Your task to perform on an android device: change the clock display to show seconds Image 0: 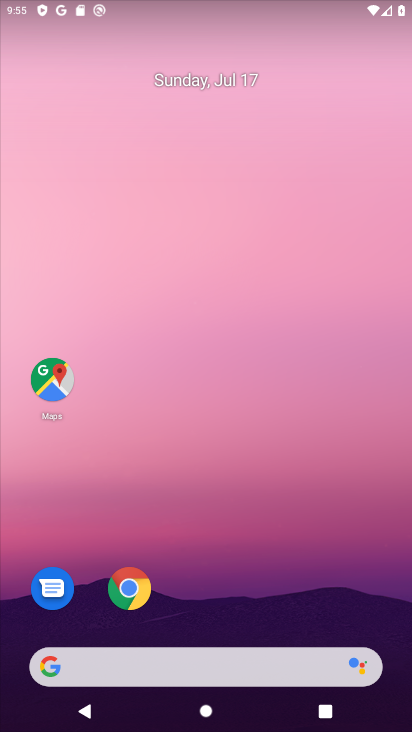
Step 0: drag from (188, 644) to (217, 6)
Your task to perform on an android device: change the clock display to show seconds Image 1: 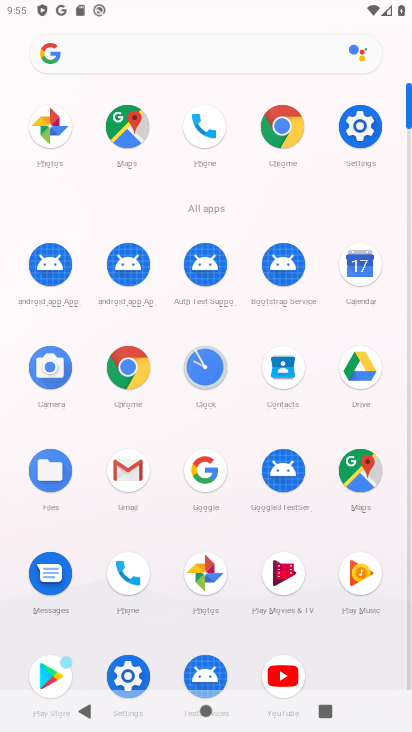
Step 1: click (209, 361)
Your task to perform on an android device: change the clock display to show seconds Image 2: 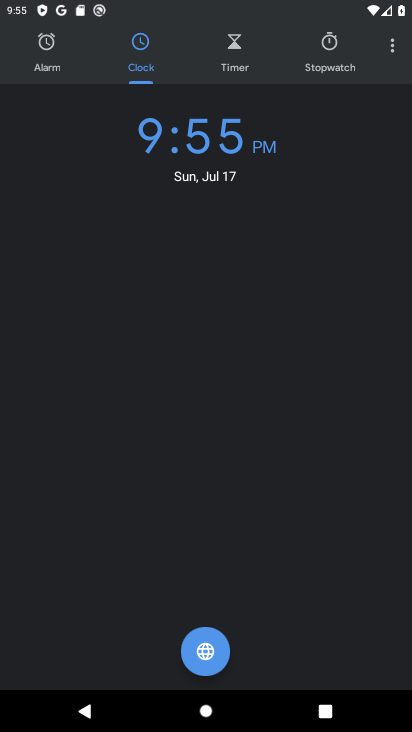
Step 2: click (392, 49)
Your task to perform on an android device: change the clock display to show seconds Image 3: 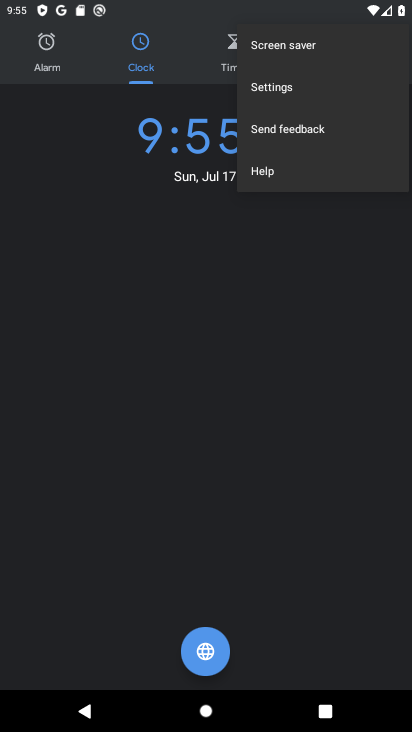
Step 3: click (271, 85)
Your task to perform on an android device: change the clock display to show seconds Image 4: 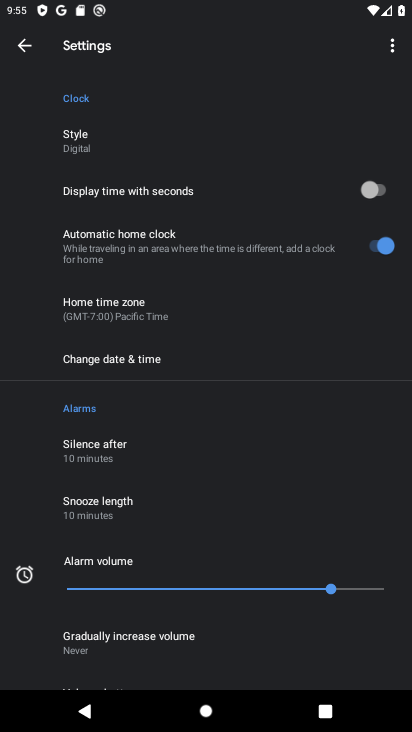
Step 4: click (381, 184)
Your task to perform on an android device: change the clock display to show seconds Image 5: 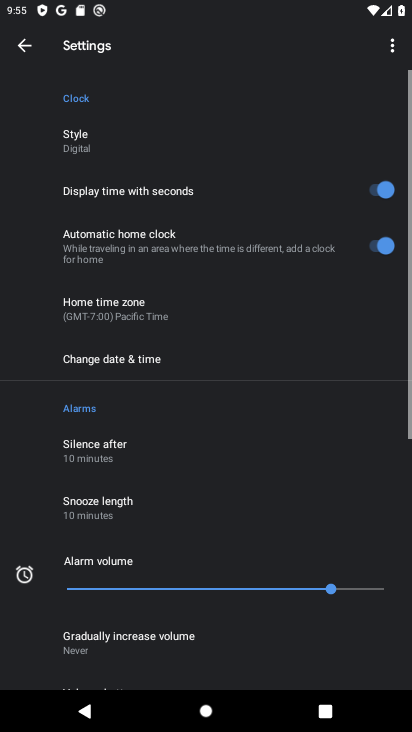
Step 5: task complete